Your task to perform on an android device: Open ESPN.com Image 0: 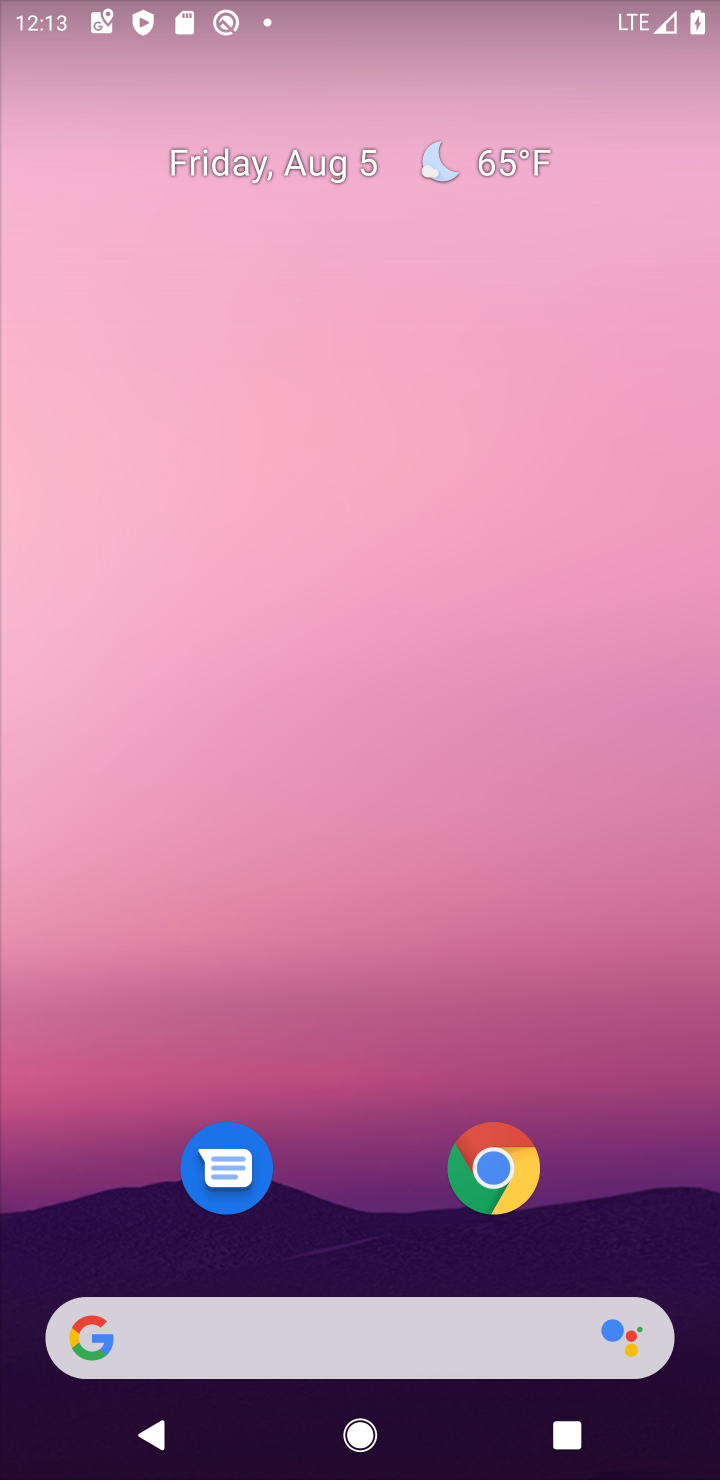
Step 0: drag from (677, 1209) to (357, 140)
Your task to perform on an android device: Open ESPN.com Image 1: 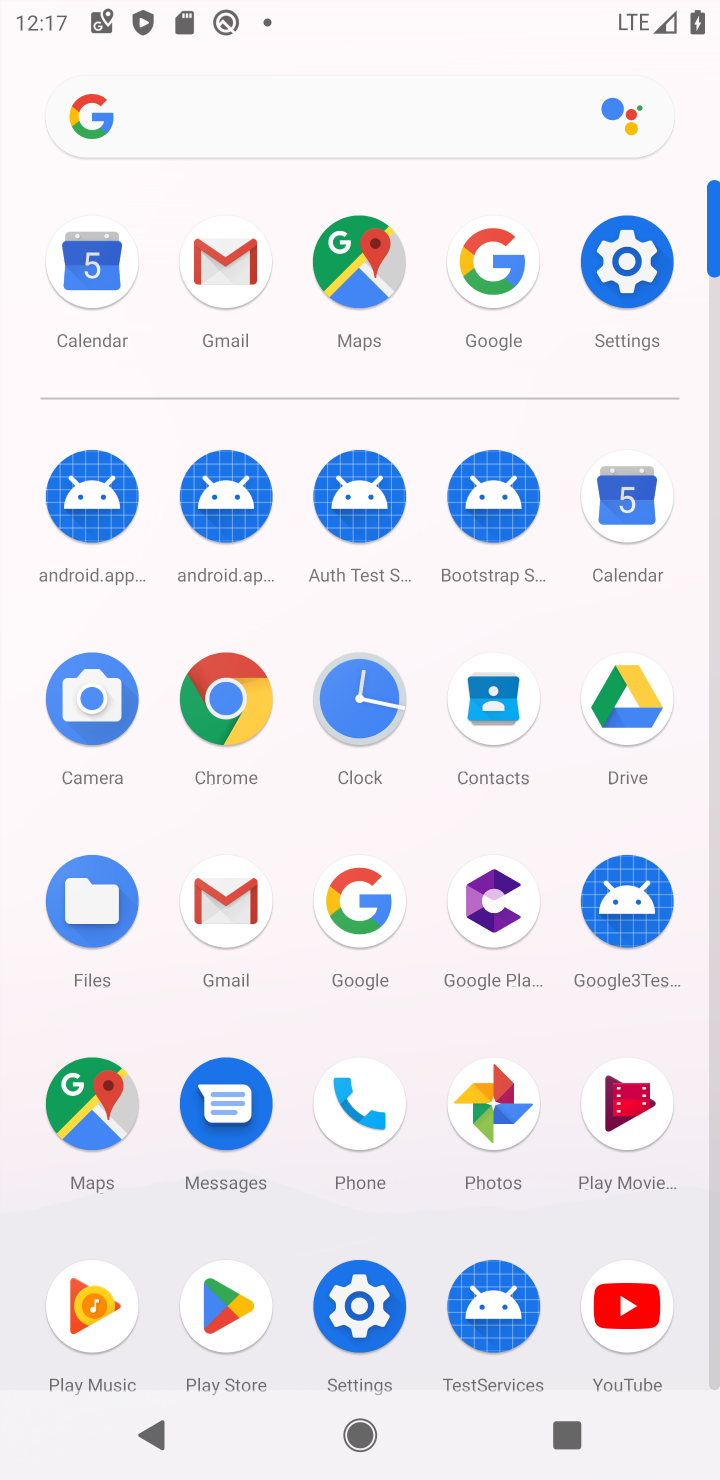
Step 1: click (384, 929)
Your task to perform on an android device: Open ESPN.com Image 2: 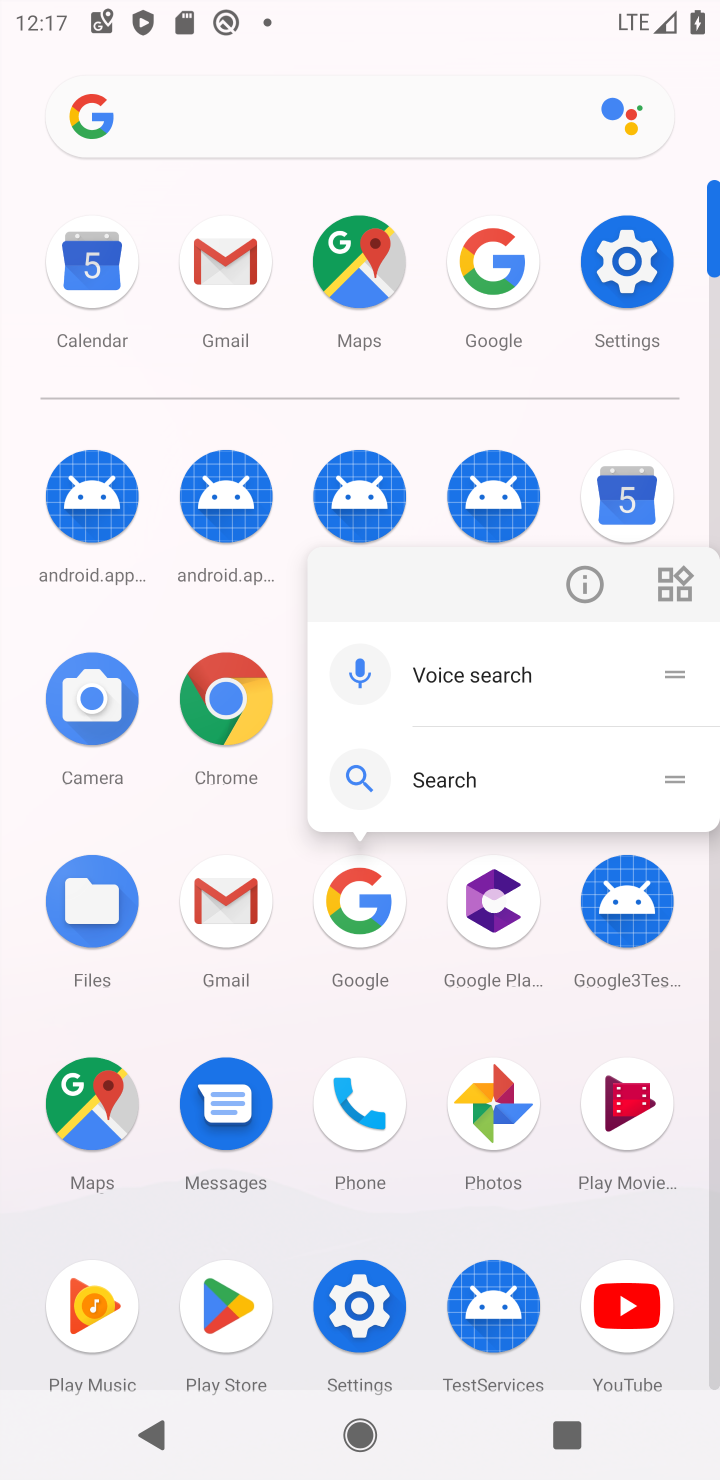
Step 2: click (384, 929)
Your task to perform on an android device: Open ESPN.com Image 3: 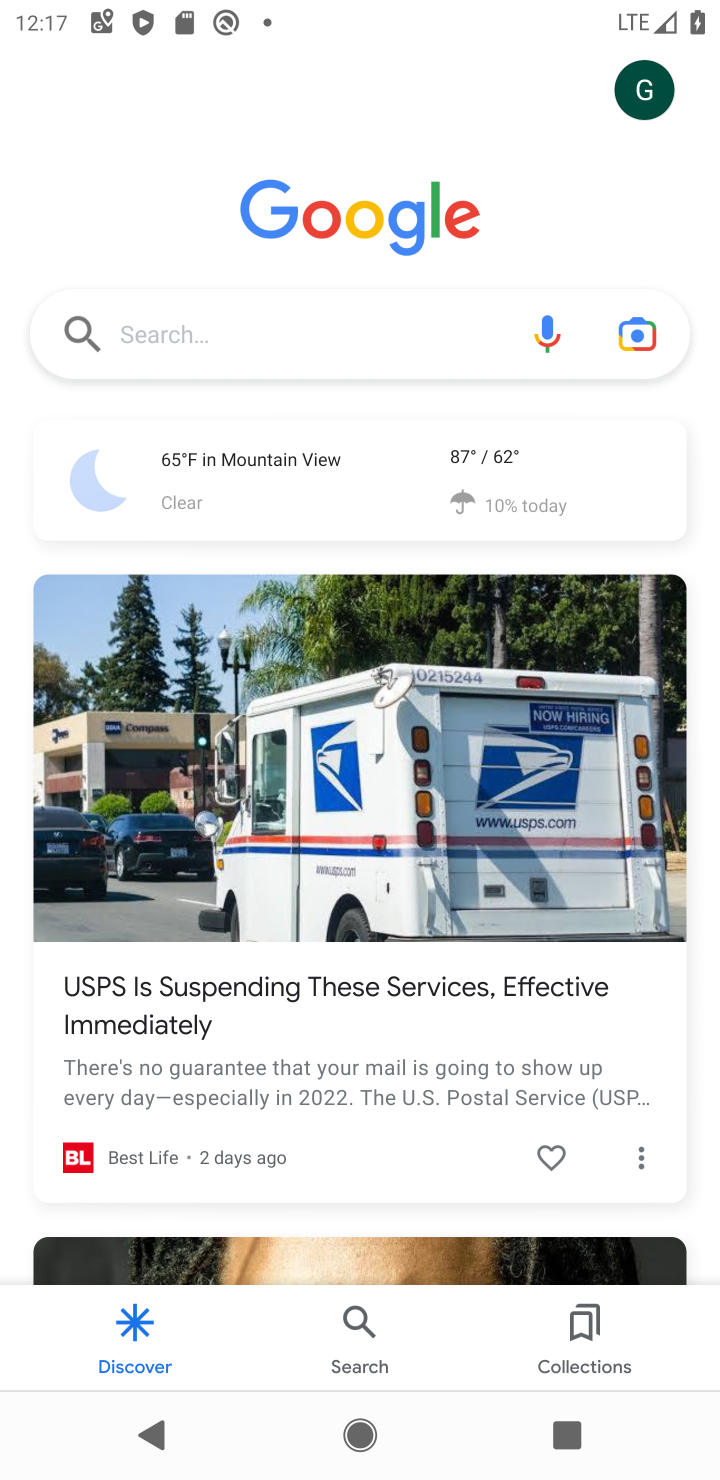
Step 3: click (138, 325)
Your task to perform on an android device: Open ESPN.com Image 4: 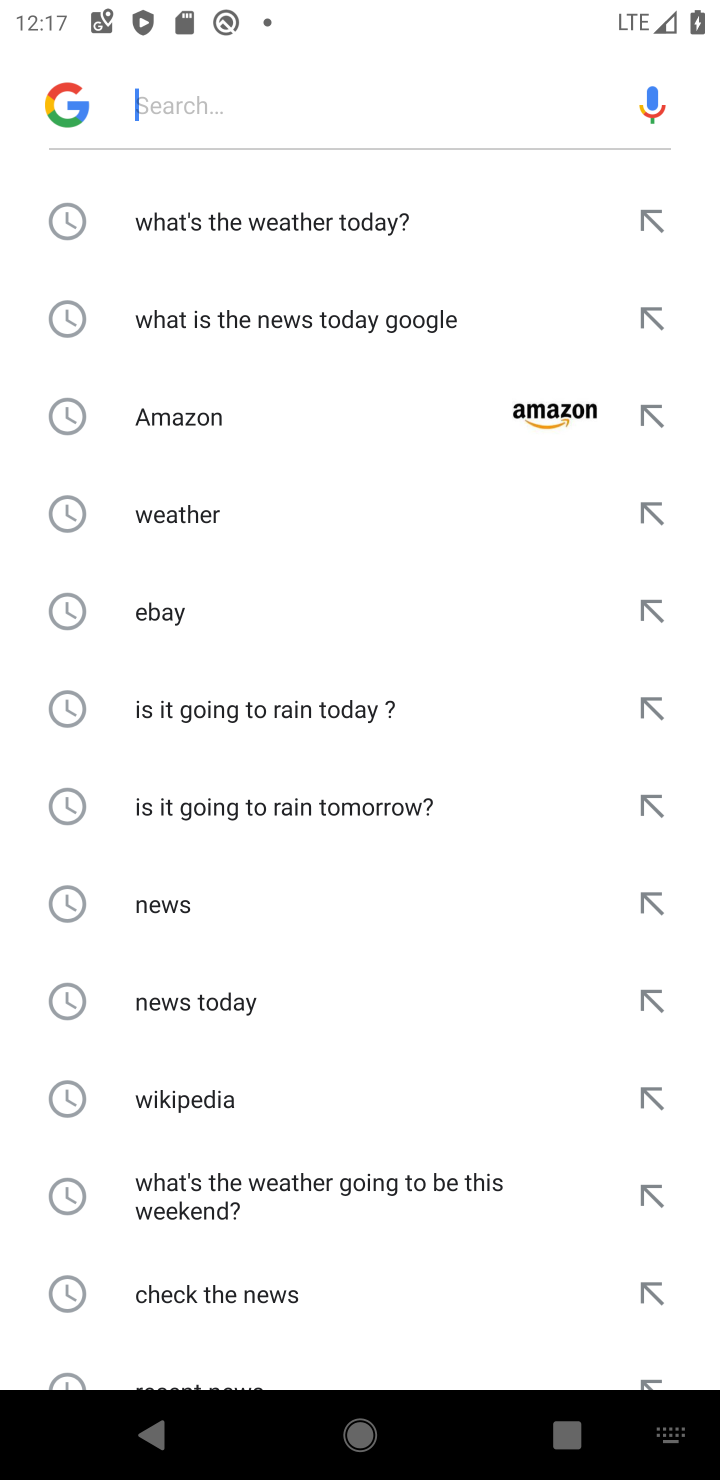
Step 4: type "ESPN.com"
Your task to perform on an android device: Open ESPN.com Image 5: 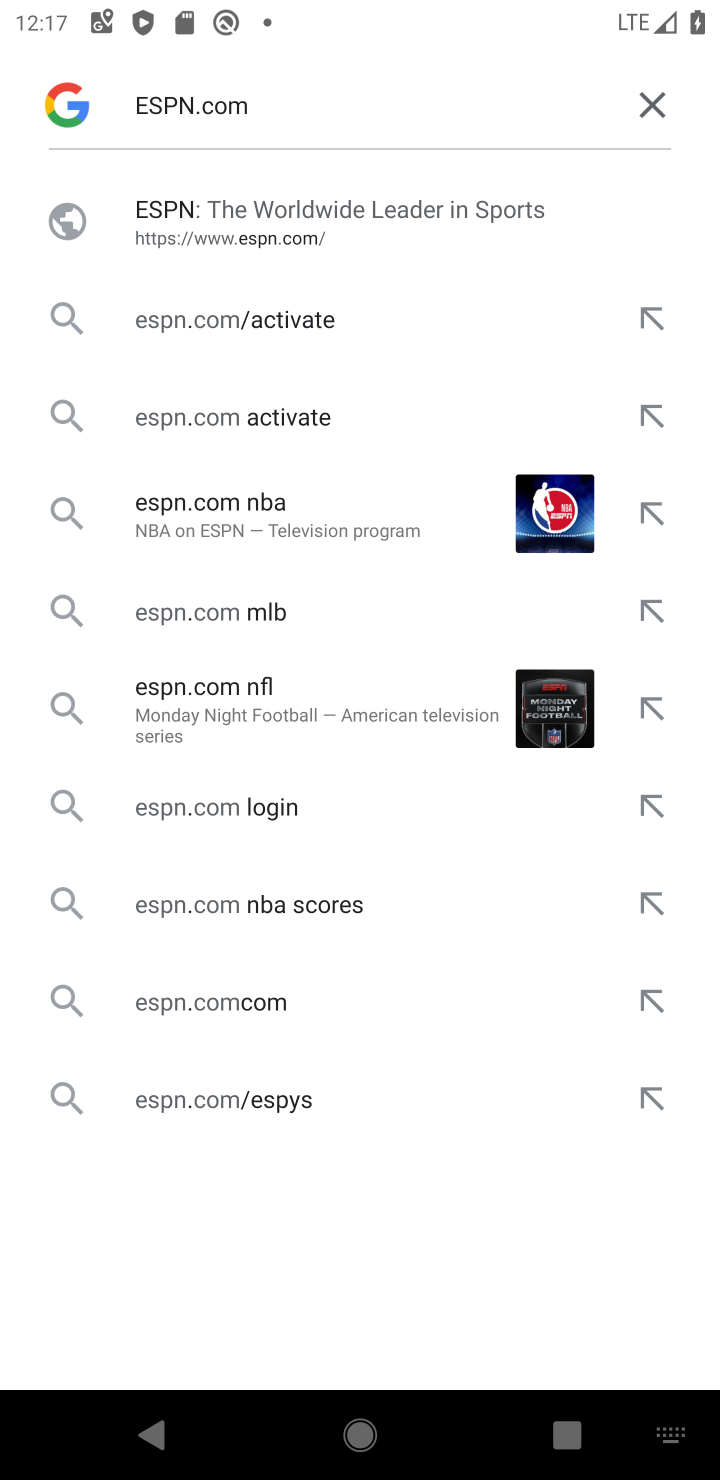
Step 5: click (291, 235)
Your task to perform on an android device: Open ESPN.com Image 6: 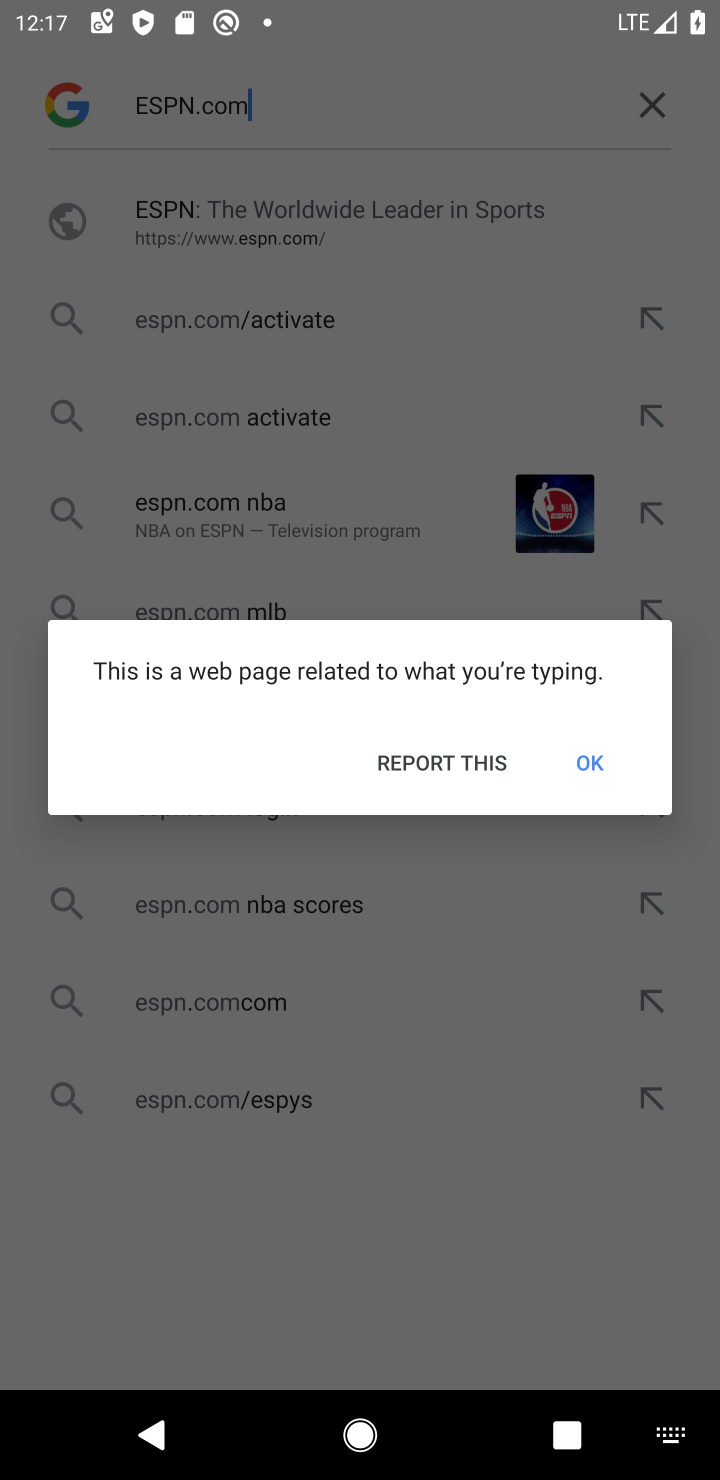
Step 6: task complete